Your task to perform on an android device: Search for pizza restaurants on Maps Image 0: 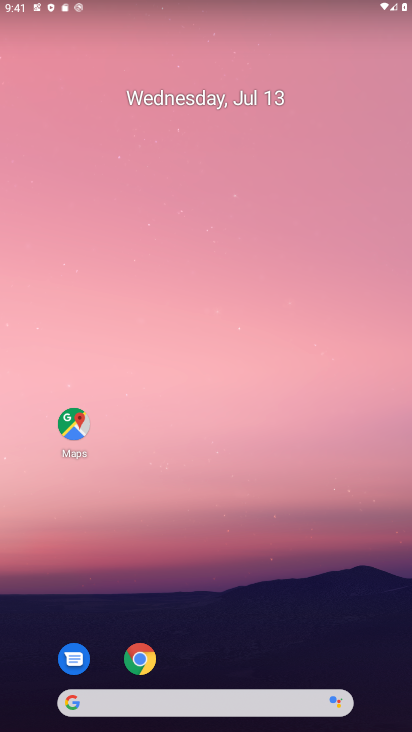
Step 0: click (68, 430)
Your task to perform on an android device: Search for pizza restaurants on Maps Image 1: 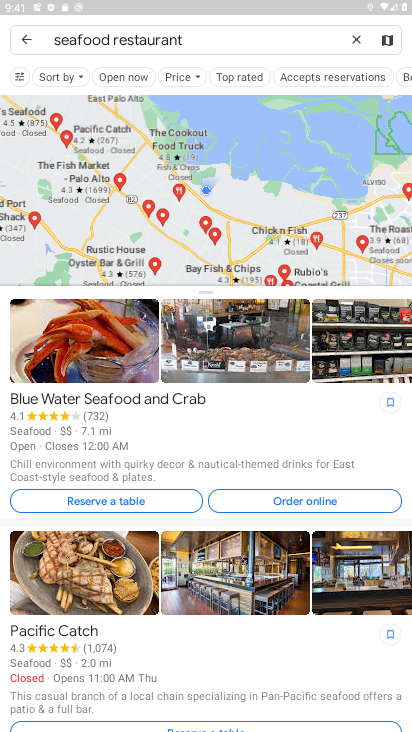
Step 1: click (202, 44)
Your task to perform on an android device: Search for pizza restaurants on Maps Image 2: 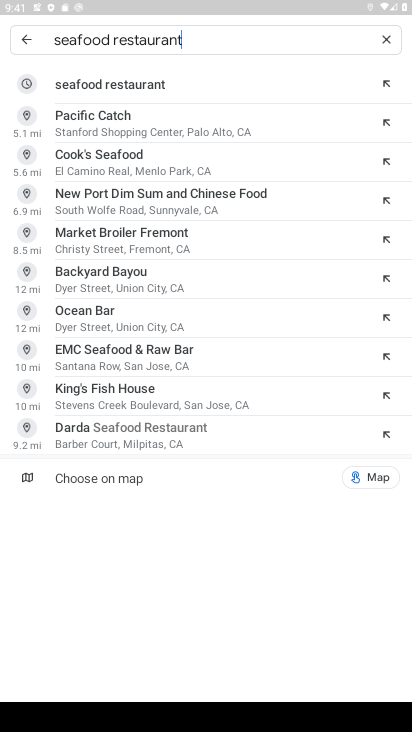
Step 2: click (385, 36)
Your task to perform on an android device: Search for pizza restaurants on Maps Image 3: 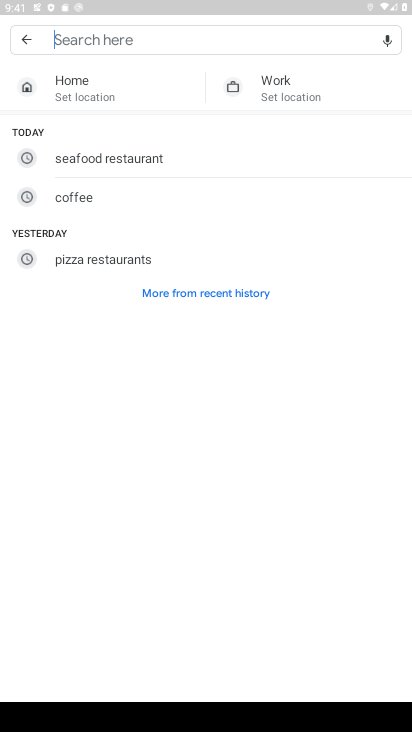
Step 3: click (126, 263)
Your task to perform on an android device: Search for pizza restaurants on Maps Image 4: 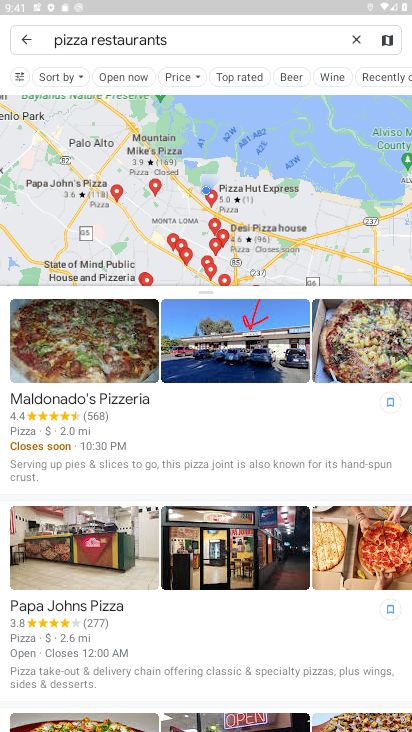
Step 4: task complete